Your task to perform on an android device: toggle sleep mode Image 0: 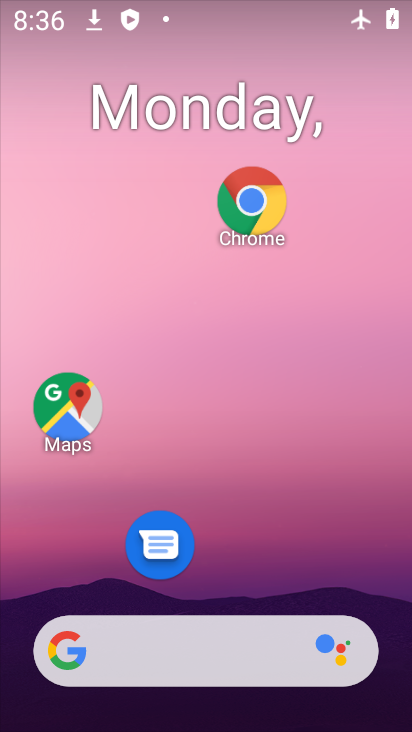
Step 0: drag from (255, 589) to (253, 136)
Your task to perform on an android device: toggle sleep mode Image 1: 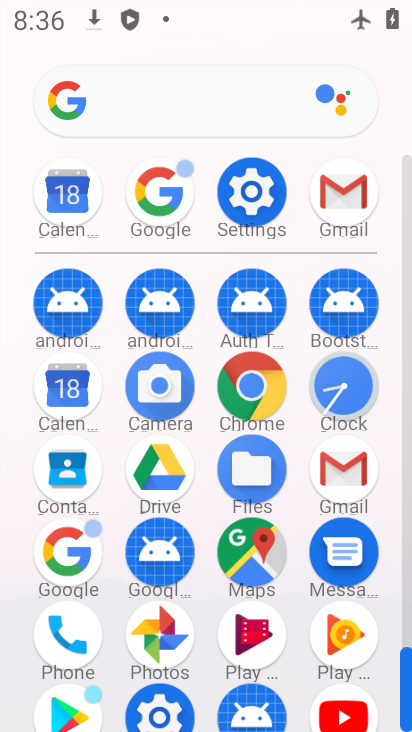
Step 1: click (257, 181)
Your task to perform on an android device: toggle sleep mode Image 2: 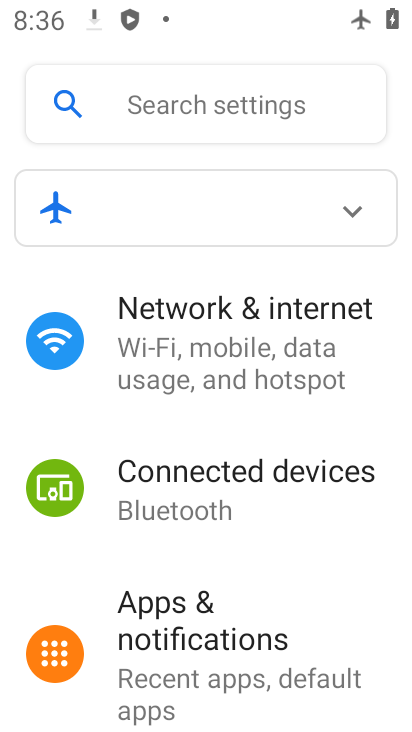
Step 2: drag from (238, 578) to (259, 331)
Your task to perform on an android device: toggle sleep mode Image 3: 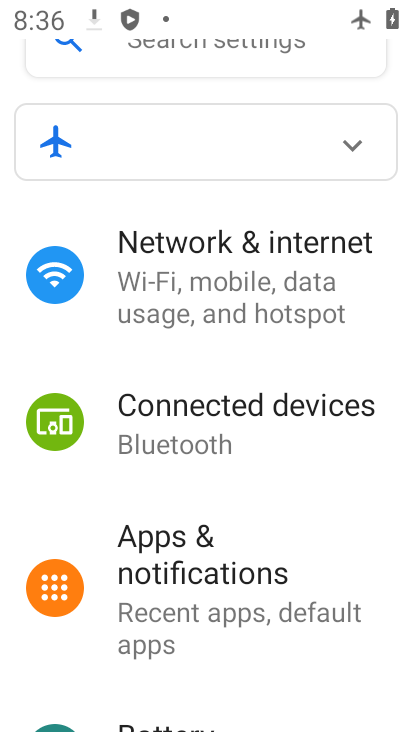
Step 3: drag from (220, 519) to (239, 224)
Your task to perform on an android device: toggle sleep mode Image 4: 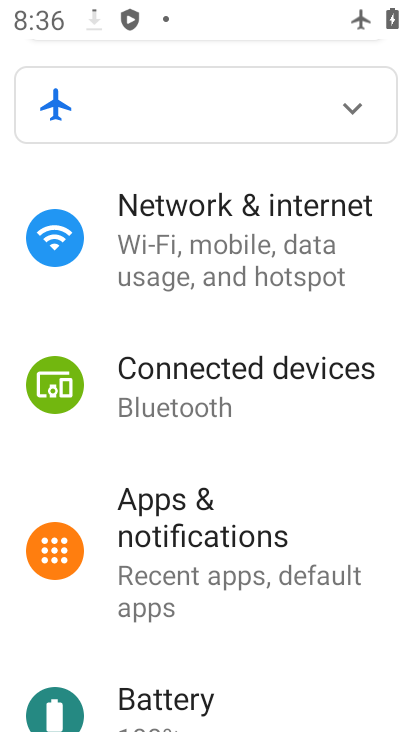
Step 4: drag from (217, 677) to (235, 391)
Your task to perform on an android device: toggle sleep mode Image 5: 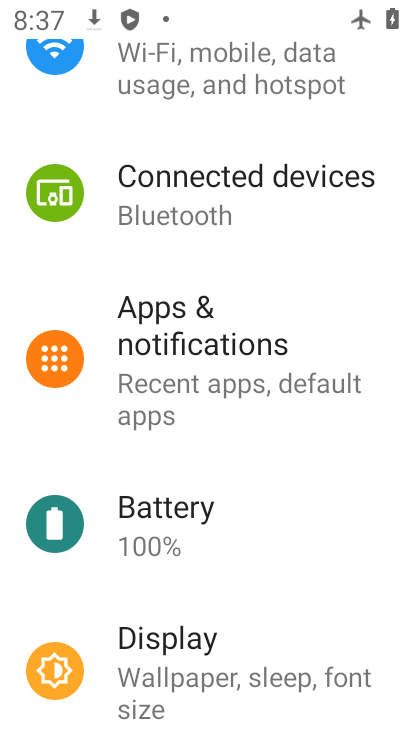
Step 5: click (203, 646)
Your task to perform on an android device: toggle sleep mode Image 6: 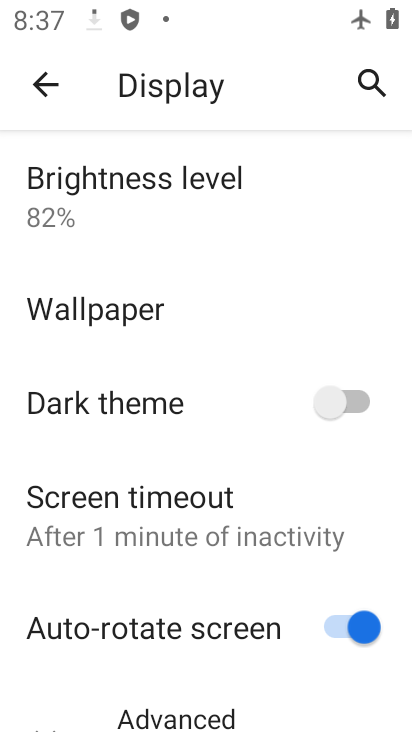
Step 6: click (183, 502)
Your task to perform on an android device: toggle sleep mode Image 7: 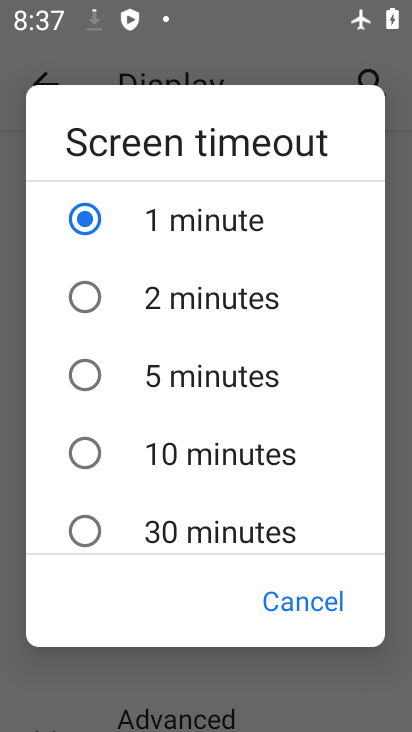
Step 7: click (190, 466)
Your task to perform on an android device: toggle sleep mode Image 8: 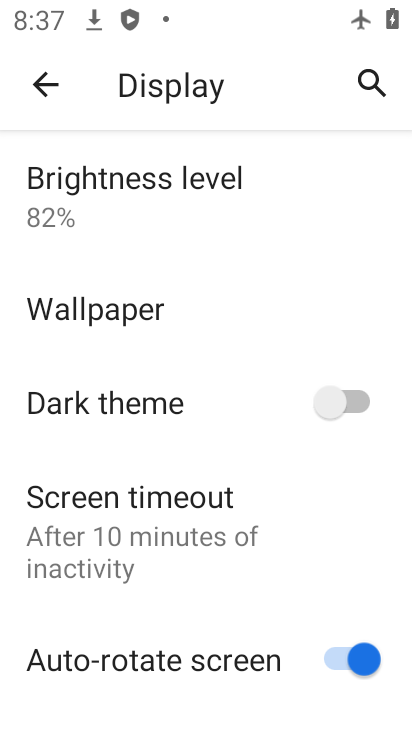
Step 8: task complete